Your task to perform on an android device: Show me the alarms in the clock app Image 0: 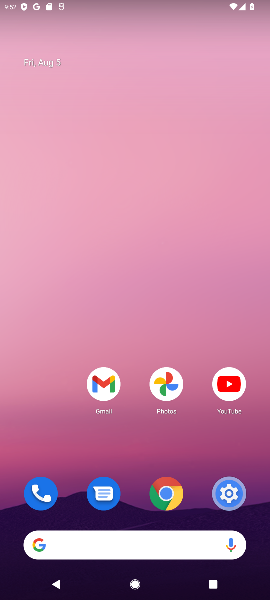
Step 0: drag from (133, 513) to (148, 37)
Your task to perform on an android device: Show me the alarms in the clock app Image 1: 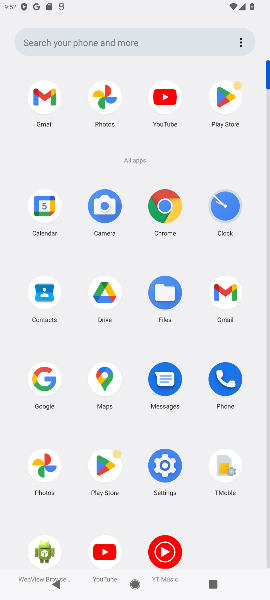
Step 1: click (224, 202)
Your task to perform on an android device: Show me the alarms in the clock app Image 2: 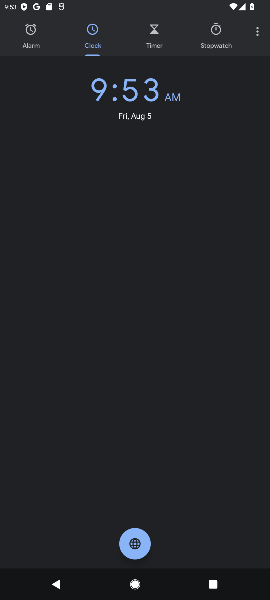
Step 2: click (32, 32)
Your task to perform on an android device: Show me the alarms in the clock app Image 3: 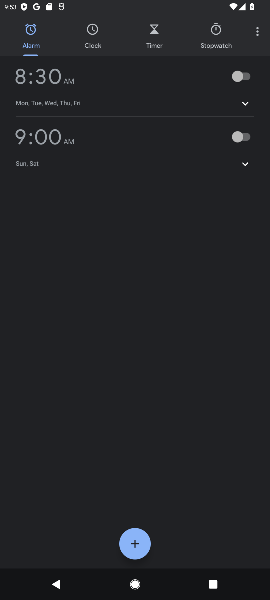
Step 3: click (242, 71)
Your task to perform on an android device: Show me the alarms in the clock app Image 4: 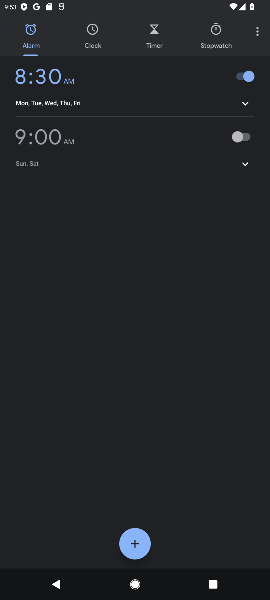
Step 4: task complete